Your task to perform on an android device: Open Google Image 0: 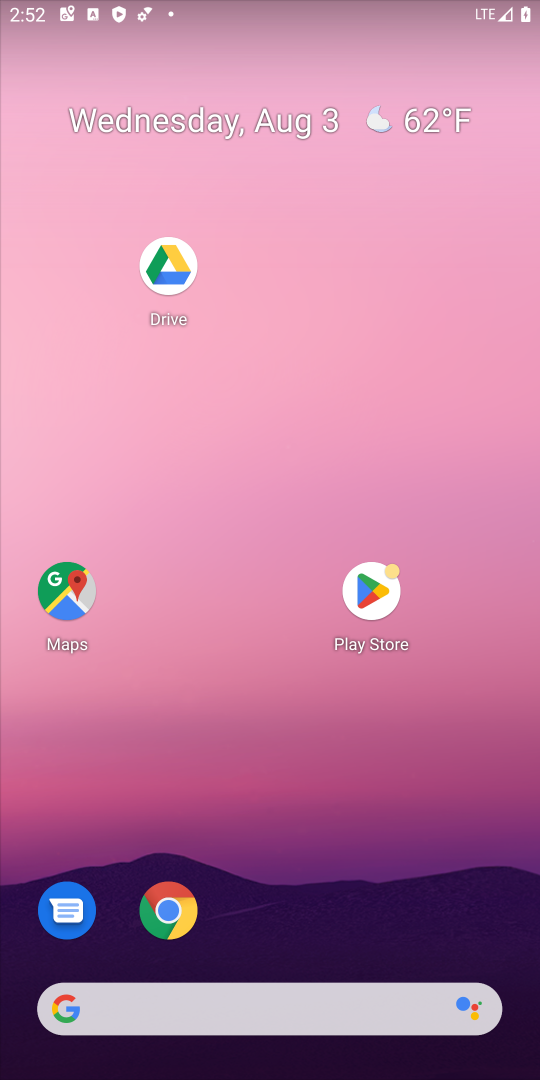
Step 0: drag from (251, 829) to (407, 171)
Your task to perform on an android device: Open Google Image 1: 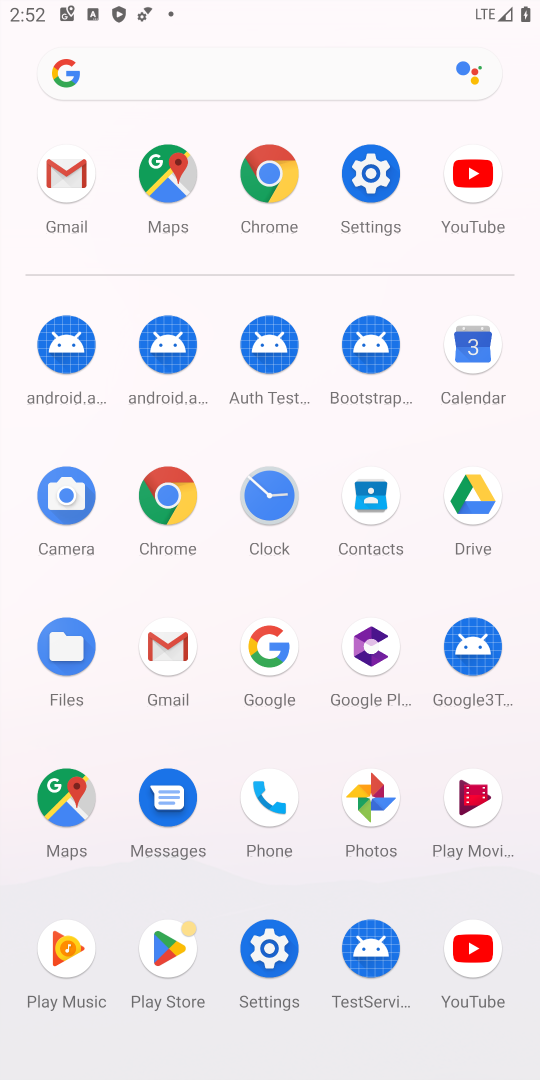
Step 1: click (186, 494)
Your task to perform on an android device: Open Google Image 2: 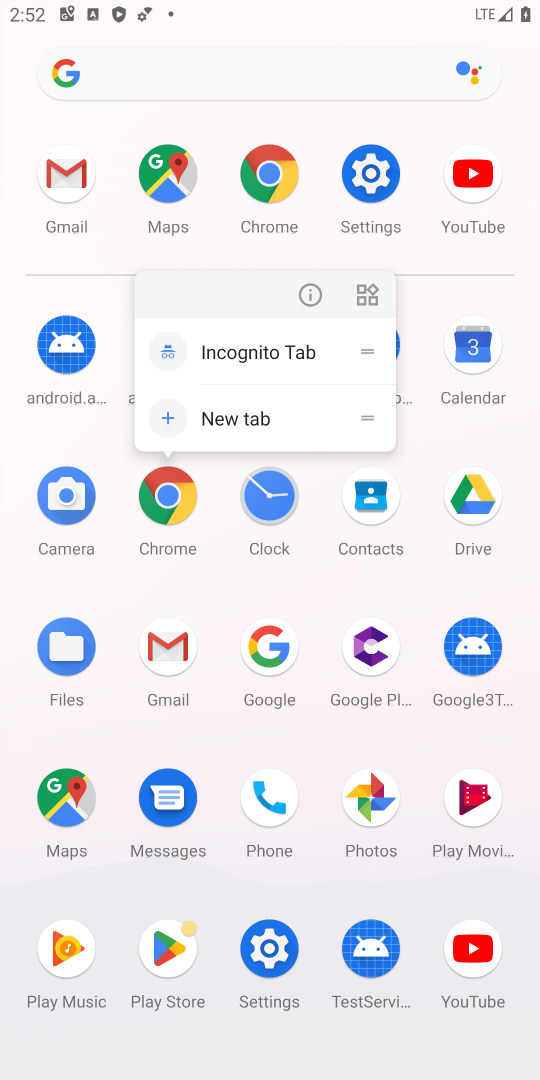
Step 2: click (183, 494)
Your task to perform on an android device: Open Google Image 3: 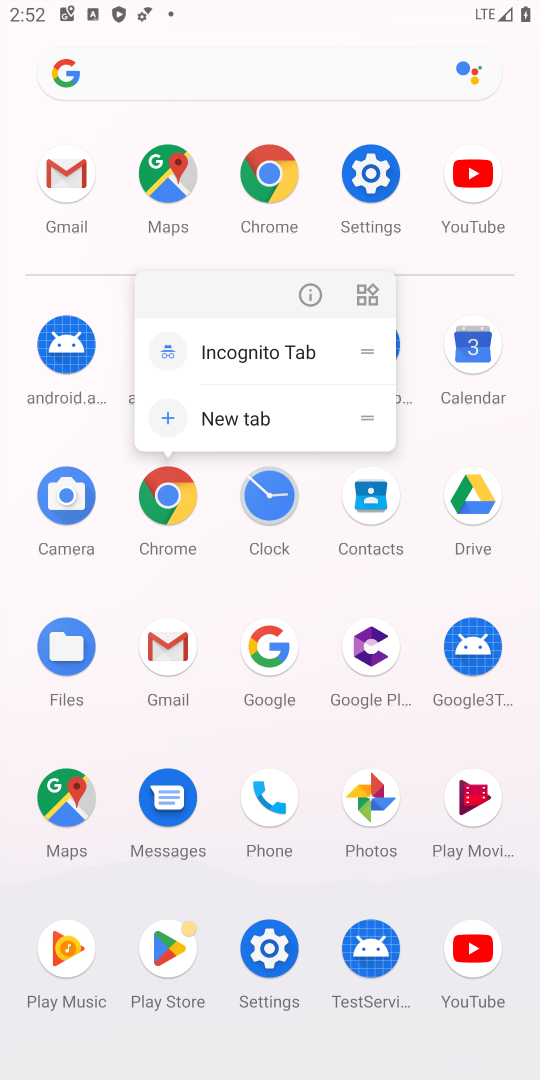
Step 3: click (183, 494)
Your task to perform on an android device: Open Google Image 4: 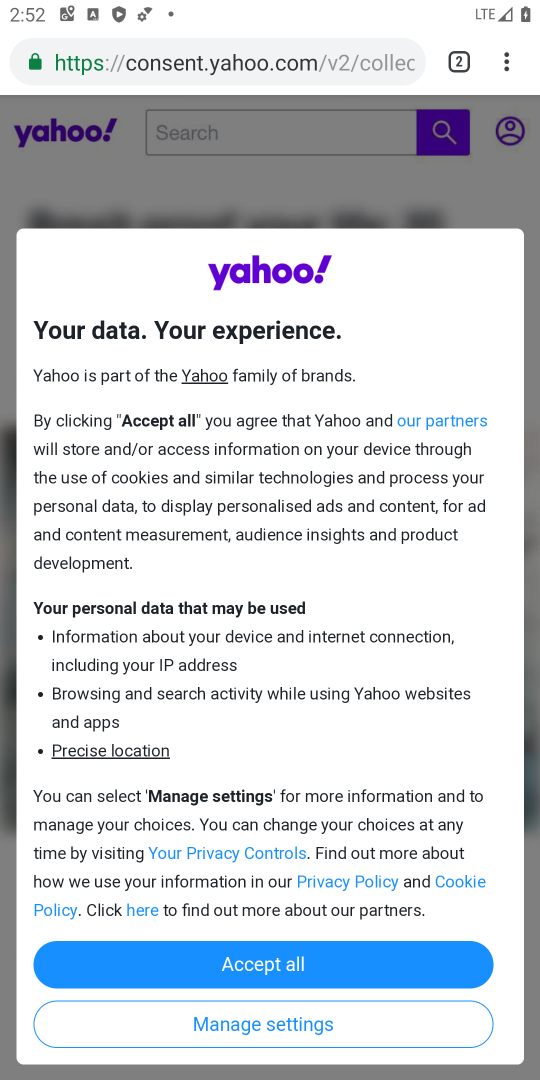
Step 4: task complete